Your task to perform on an android device: Do I have any events today? Image 0: 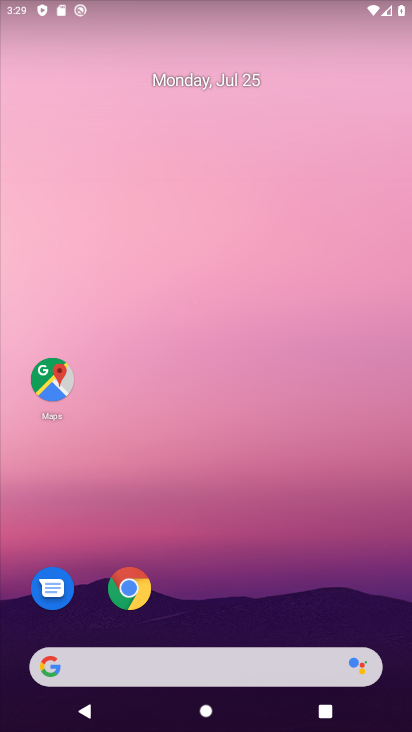
Step 0: drag from (337, 626) to (237, 211)
Your task to perform on an android device: Do I have any events today? Image 1: 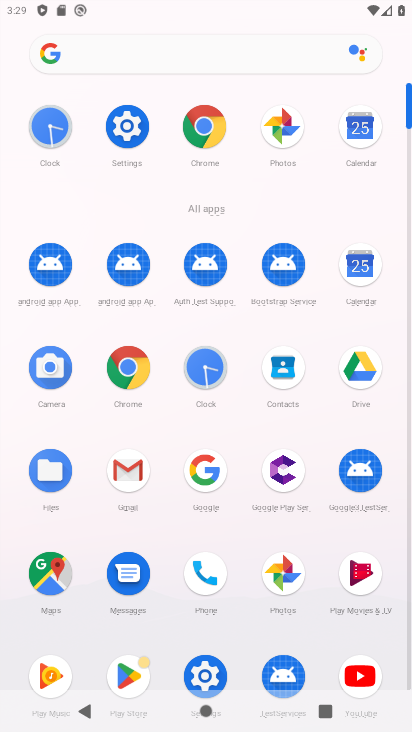
Step 1: click (352, 258)
Your task to perform on an android device: Do I have any events today? Image 2: 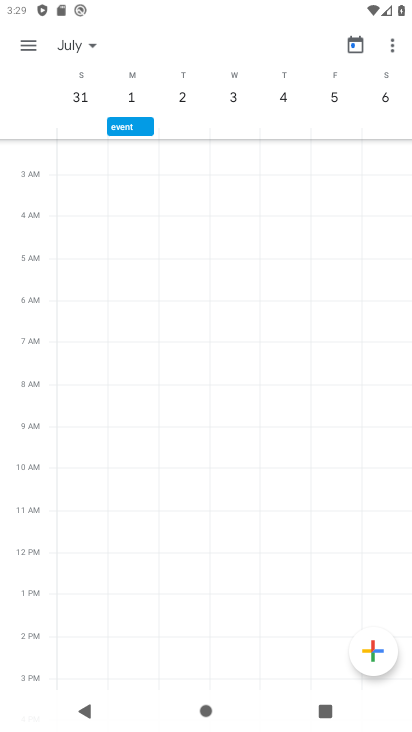
Step 2: click (28, 41)
Your task to perform on an android device: Do I have any events today? Image 3: 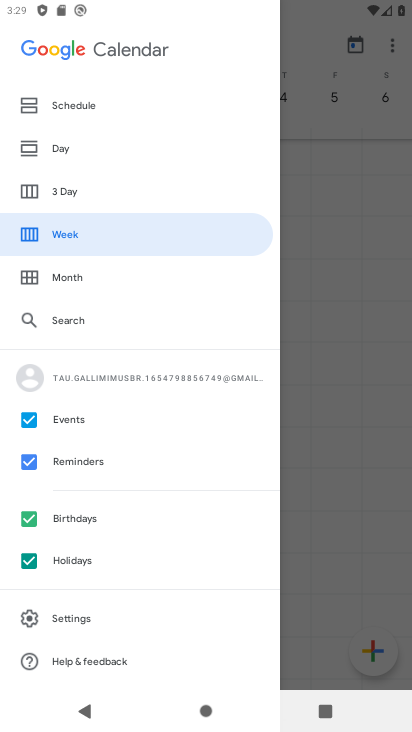
Step 3: click (106, 145)
Your task to perform on an android device: Do I have any events today? Image 4: 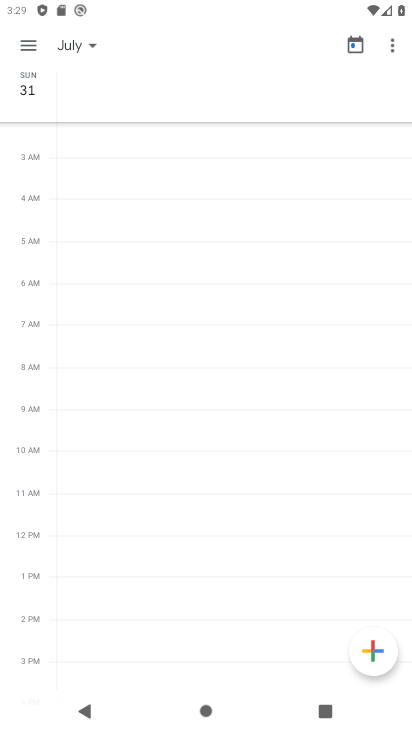
Step 4: click (83, 42)
Your task to perform on an android device: Do I have any events today? Image 5: 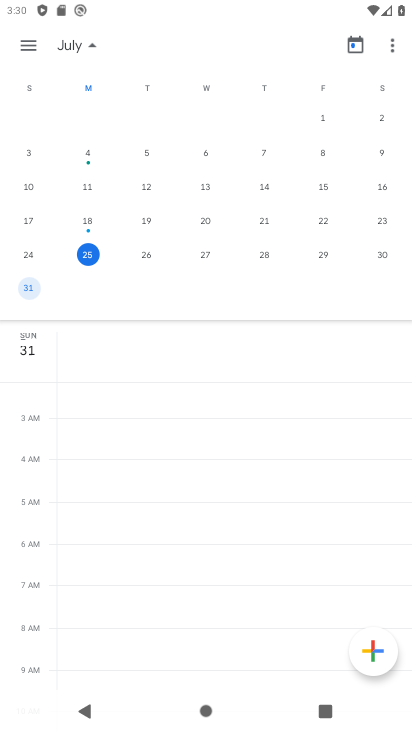
Step 5: click (83, 255)
Your task to perform on an android device: Do I have any events today? Image 6: 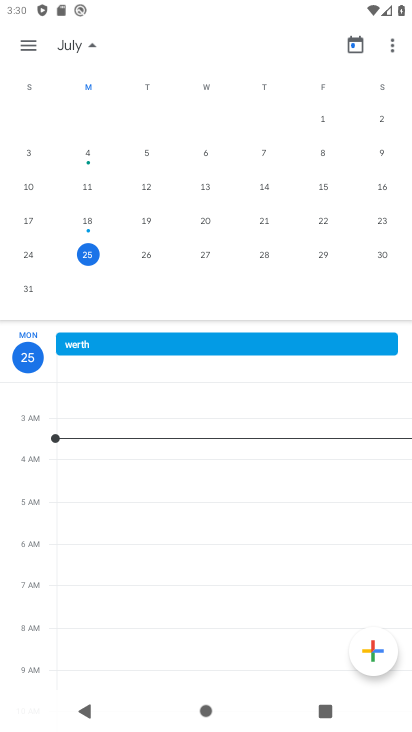
Step 6: task complete